Your task to perform on an android device: toggle priority inbox in the gmail app Image 0: 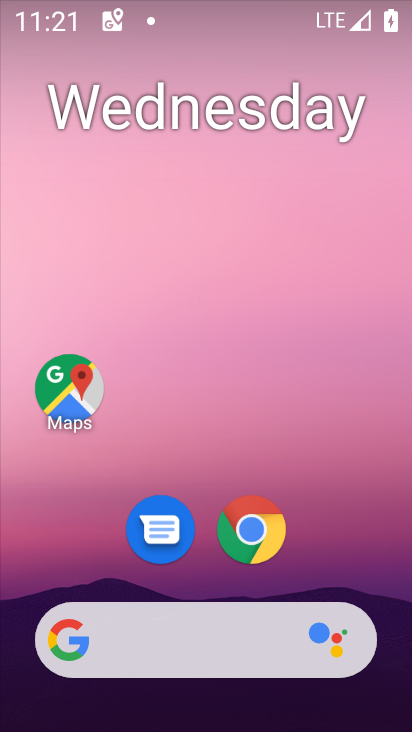
Step 0: drag from (393, 632) to (332, 50)
Your task to perform on an android device: toggle priority inbox in the gmail app Image 1: 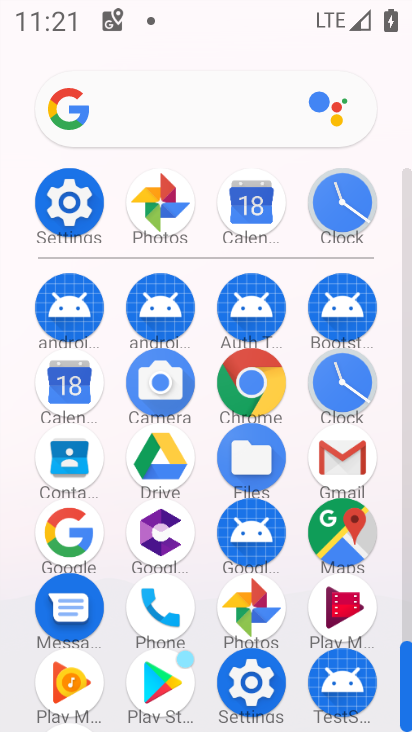
Step 1: click (341, 456)
Your task to perform on an android device: toggle priority inbox in the gmail app Image 2: 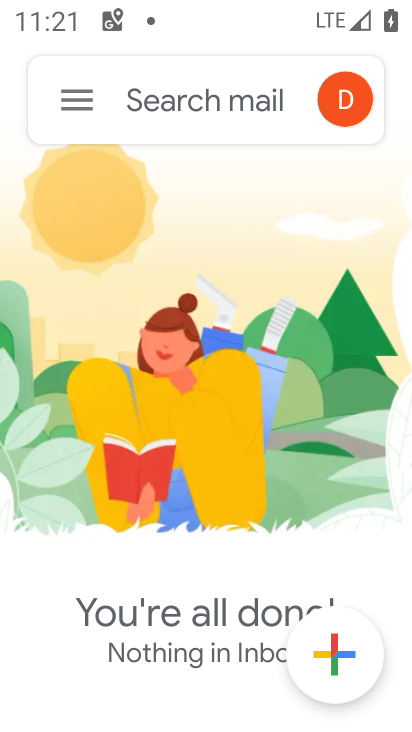
Step 2: click (80, 94)
Your task to perform on an android device: toggle priority inbox in the gmail app Image 3: 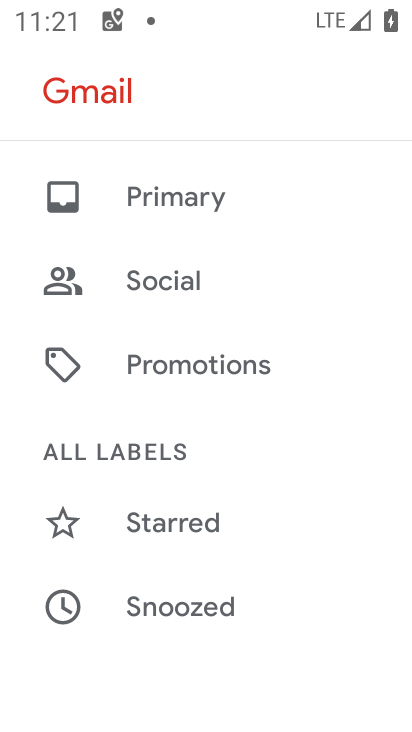
Step 3: drag from (306, 636) to (286, 187)
Your task to perform on an android device: toggle priority inbox in the gmail app Image 4: 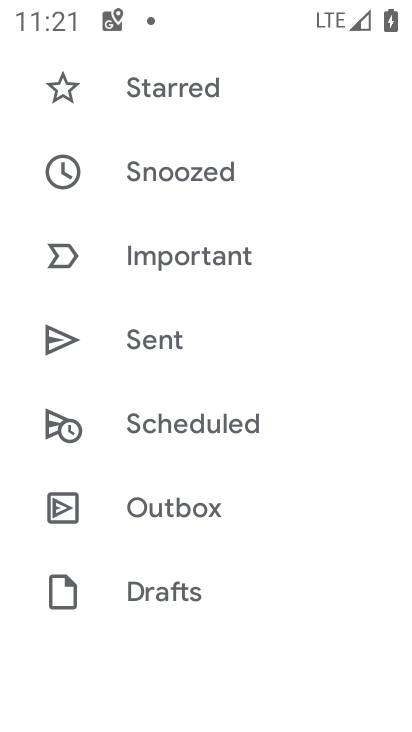
Step 4: drag from (255, 587) to (304, 88)
Your task to perform on an android device: toggle priority inbox in the gmail app Image 5: 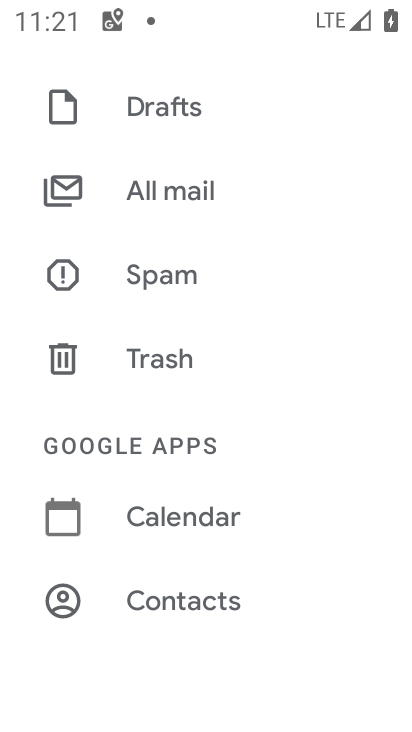
Step 5: drag from (270, 608) to (270, 103)
Your task to perform on an android device: toggle priority inbox in the gmail app Image 6: 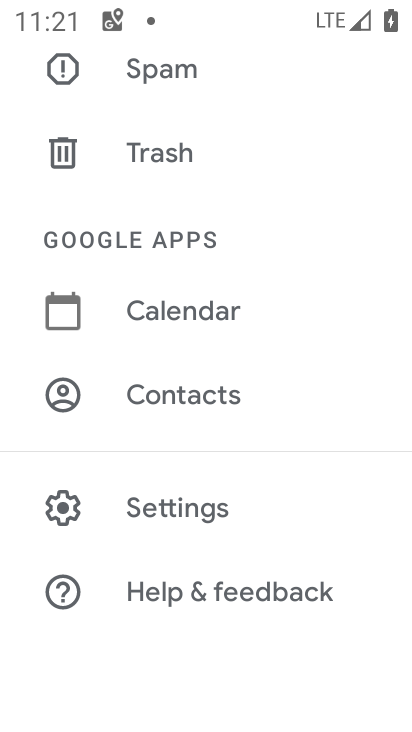
Step 6: click (169, 512)
Your task to perform on an android device: toggle priority inbox in the gmail app Image 7: 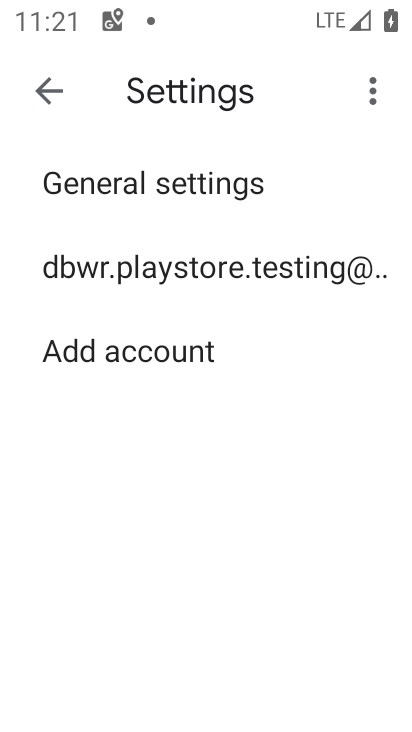
Step 7: click (172, 267)
Your task to perform on an android device: toggle priority inbox in the gmail app Image 8: 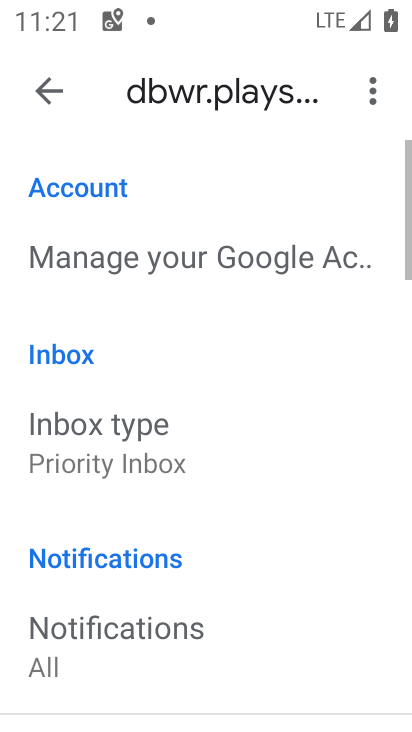
Step 8: click (107, 435)
Your task to perform on an android device: toggle priority inbox in the gmail app Image 9: 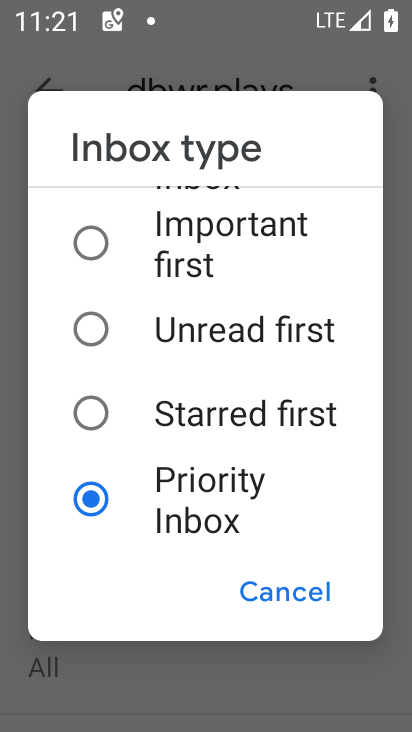
Step 9: click (91, 239)
Your task to perform on an android device: toggle priority inbox in the gmail app Image 10: 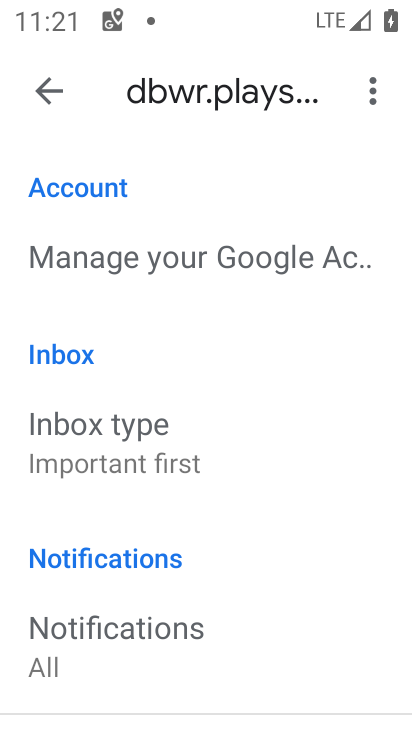
Step 10: task complete